Your task to perform on an android device: turn off priority inbox in the gmail app Image 0: 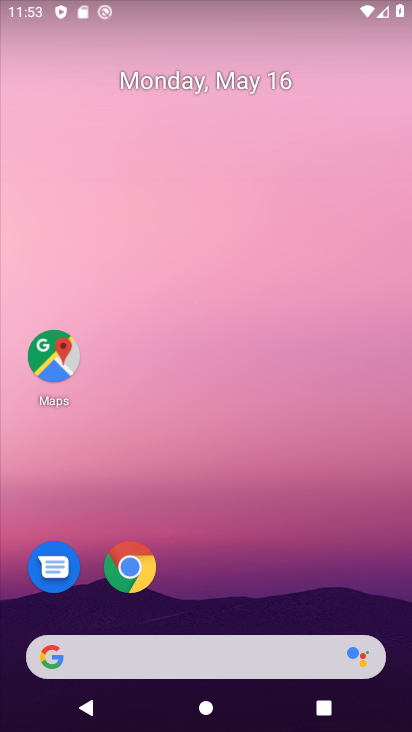
Step 0: drag from (176, 663) to (184, 266)
Your task to perform on an android device: turn off priority inbox in the gmail app Image 1: 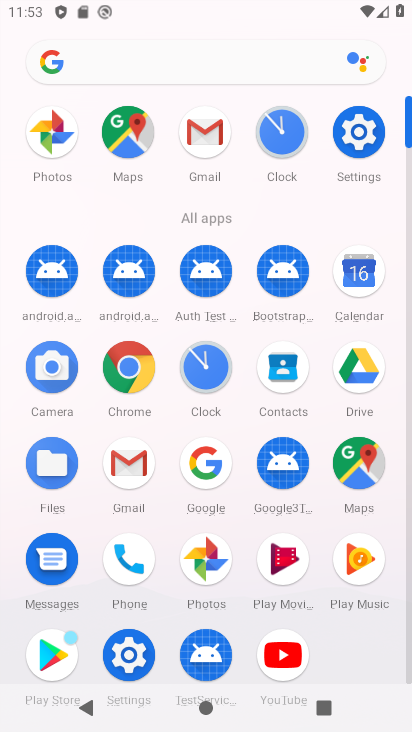
Step 1: click (215, 142)
Your task to perform on an android device: turn off priority inbox in the gmail app Image 2: 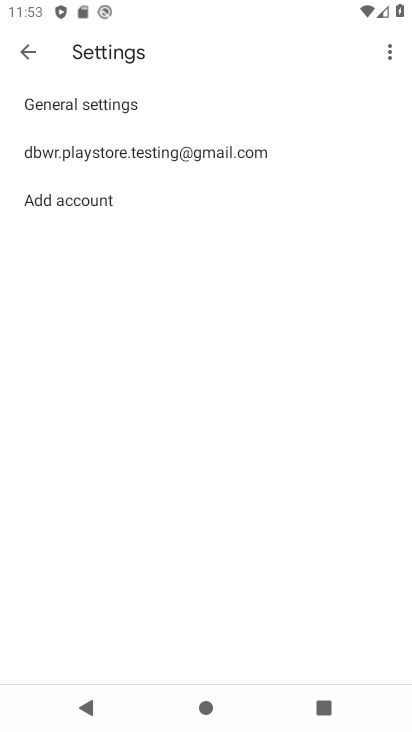
Step 2: click (186, 149)
Your task to perform on an android device: turn off priority inbox in the gmail app Image 3: 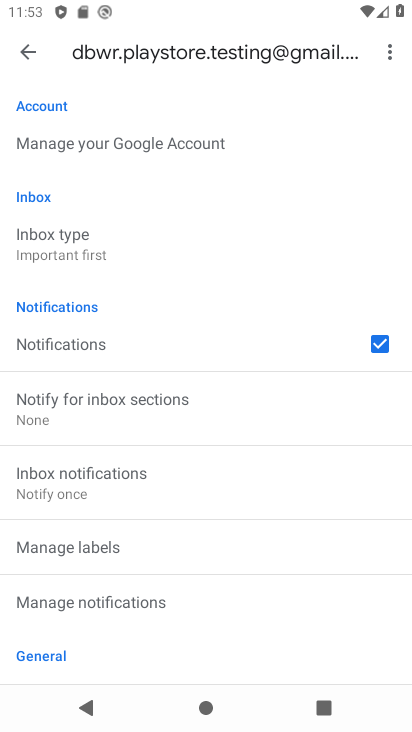
Step 3: click (86, 235)
Your task to perform on an android device: turn off priority inbox in the gmail app Image 4: 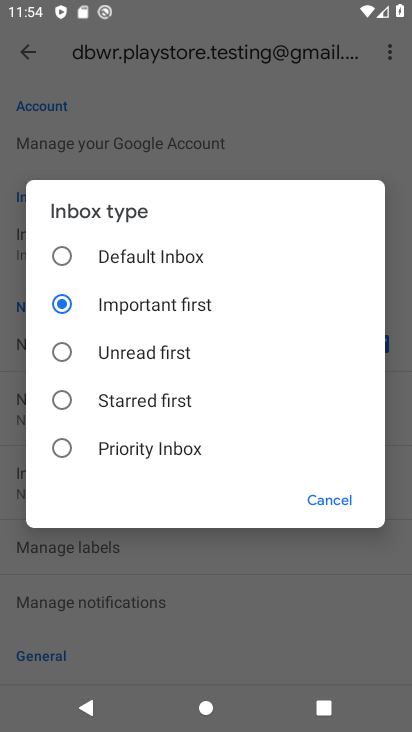
Step 4: task complete